Your task to perform on an android device: Open the calendar app, open the side menu, and click the "Day" option Image 0: 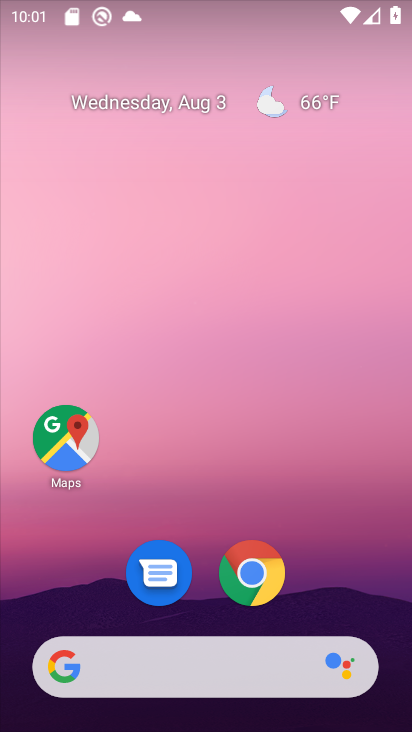
Step 0: drag from (240, 640) to (263, 9)
Your task to perform on an android device: Open the calendar app, open the side menu, and click the "Day" option Image 1: 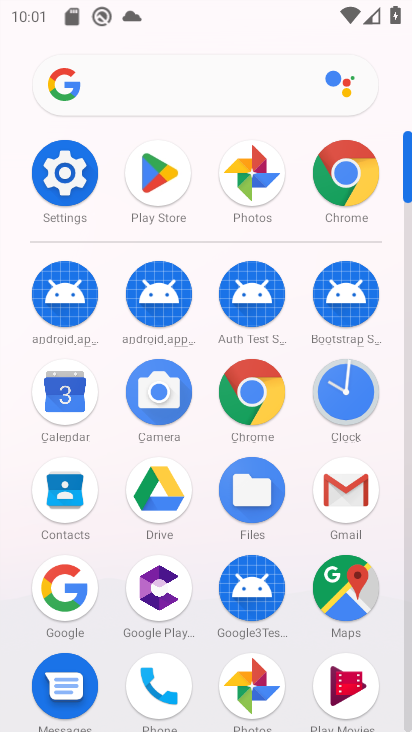
Step 1: click (54, 395)
Your task to perform on an android device: Open the calendar app, open the side menu, and click the "Day" option Image 2: 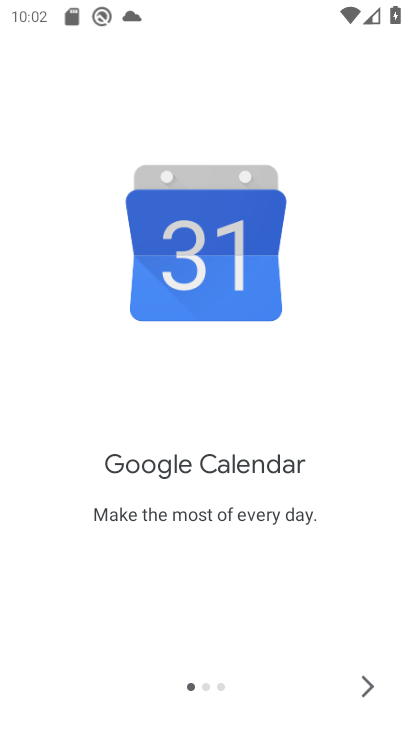
Step 2: click (366, 688)
Your task to perform on an android device: Open the calendar app, open the side menu, and click the "Day" option Image 3: 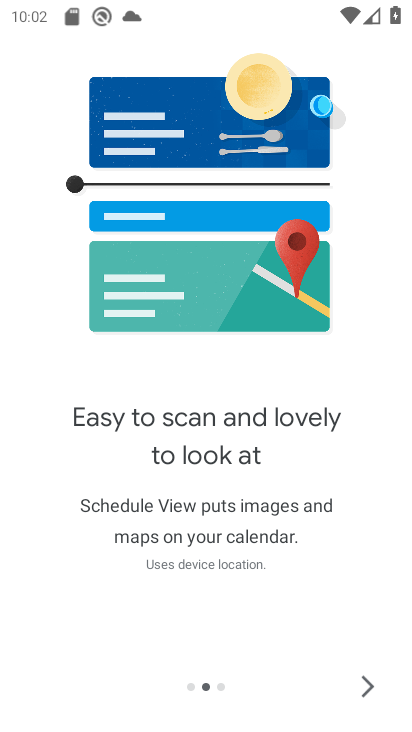
Step 3: click (366, 687)
Your task to perform on an android device: Open the calendar app, open the side menu, and click the "Day" option Image 4: 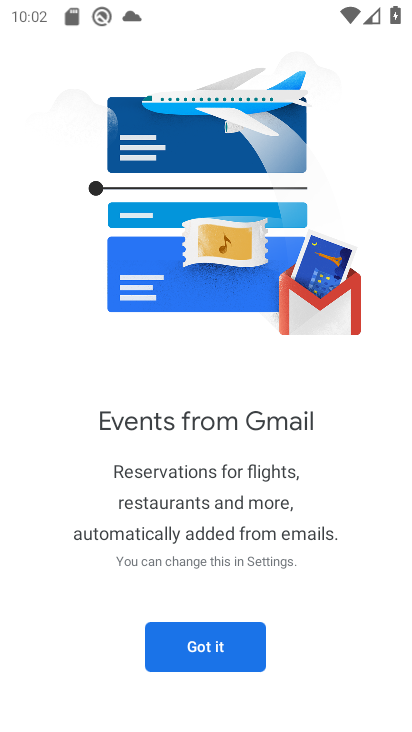
Step 4: click (212, 643)
Your task to perform on an android device: Open the calendar app, open the side menu, and click the "Day" option Image 5: 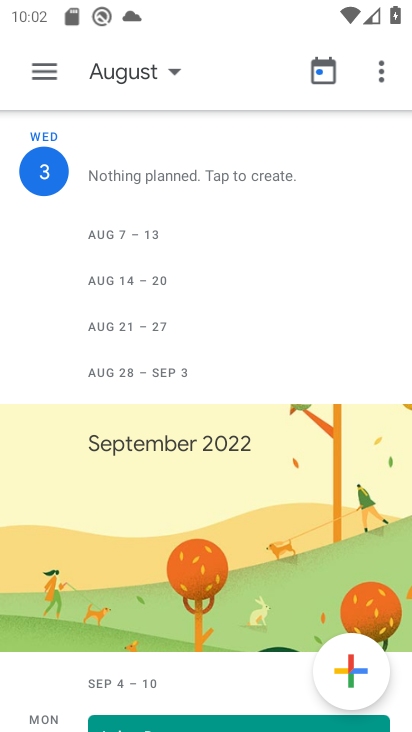
Step 5: click (44, 76)
Your task to perform on an android device: Open the calendar app, open the side menu, and click the "Day" option Image 6: 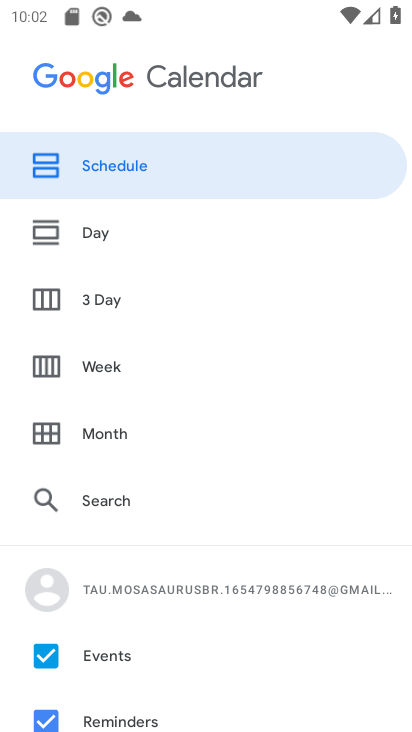
Step 6: click (93, 234)
Your task to perform on an android device: Open the calendar app, open the side menu, and click the "Day" option Image 7: 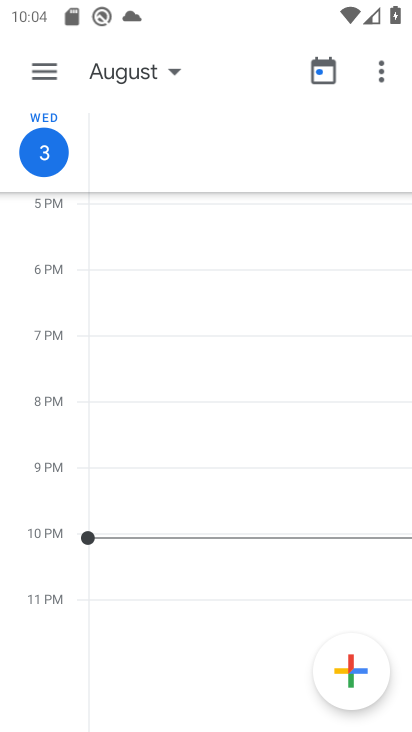
Step 7: task complete